Your task to perform on an android device: snooze an email in the gmail app Image 0: 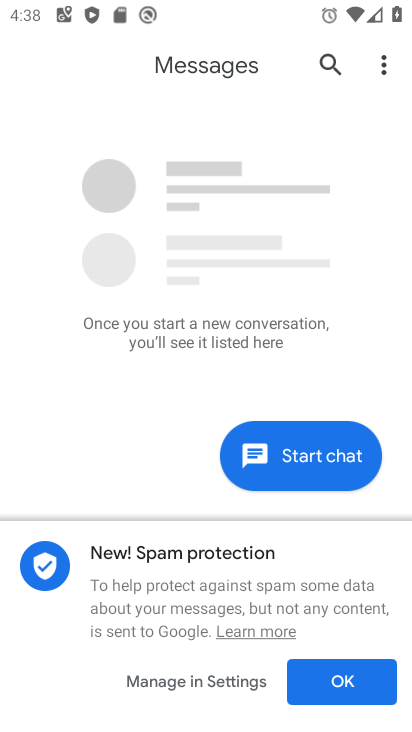
Step 0: press home button
Your task to perform on an android device: snooze an email in the gmail app Image 1: 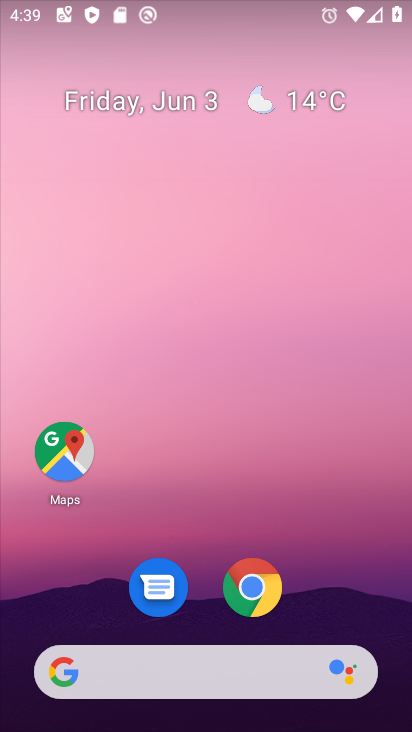
Step 1: drag from (175, 648) to (177, 350)
Your task to perform on an android device: snooze an email in the gmail app Image 2: 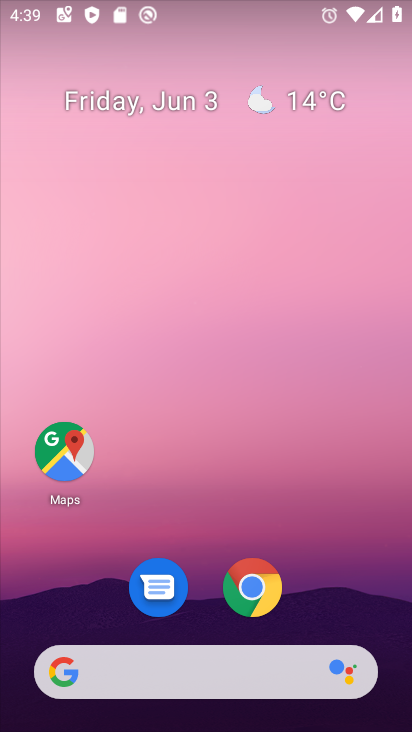
Step 2: drag from (207, 639) to (207, 293)
Your task to perform on an android device: snooze an email in the gmail app Image 3: 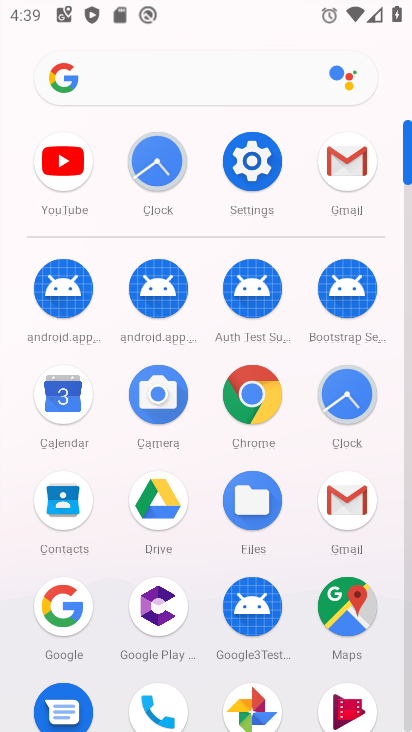
Step 3: click (363, 514)
Your task to perform on an android device: snooze an email in the gmail app Image 4: 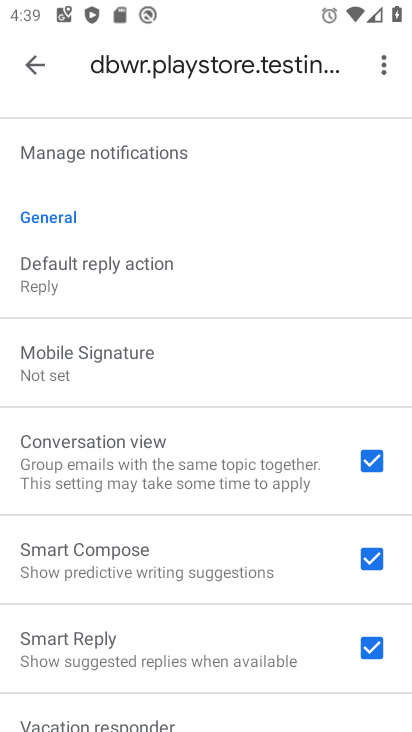
Step 4: click (35, 73)
Your task to perform on an android device: snooze an email in the gmail app Image 5: 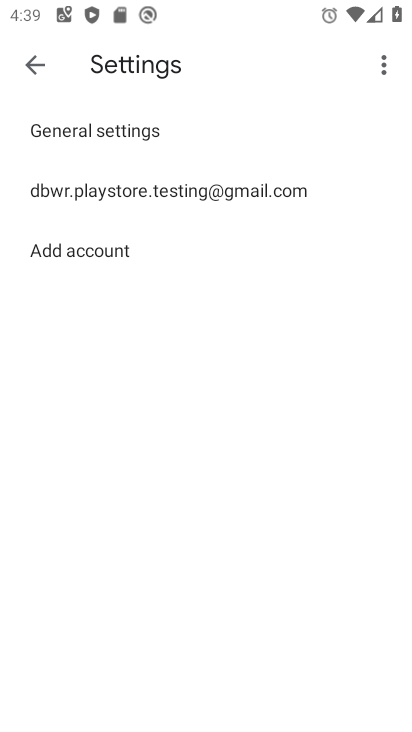
Step 5: click (35, 73)
Your task to perform on an android device: snooze an email in the gmail app Image 6: 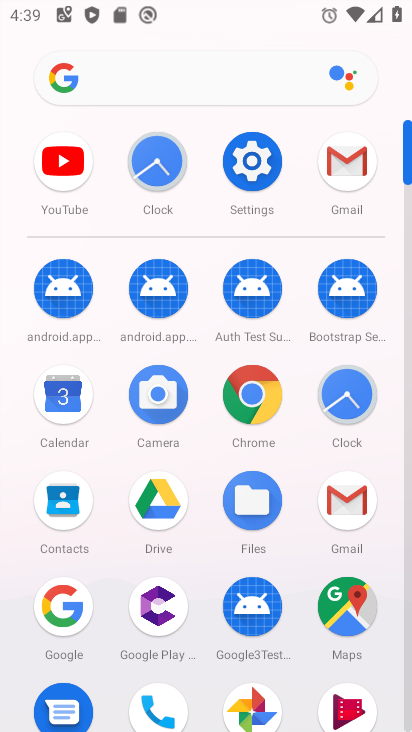
Step 6: click (334, 169)
Your task to perform on an android device: snooze an email in the gmail app Image 7: 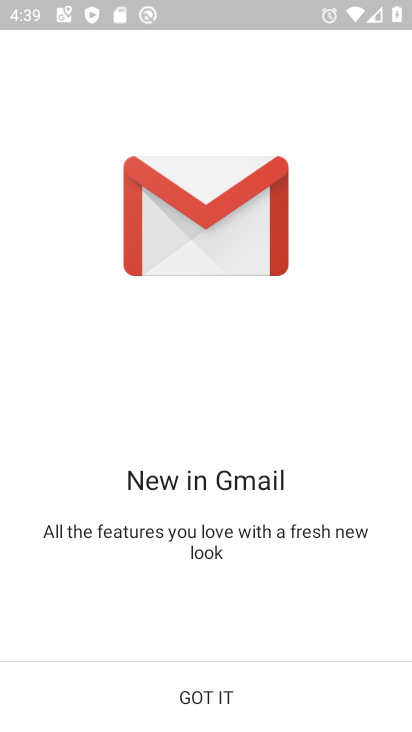
Step 7: click (212, 689)
Your task to perform on an android device: snooze an email in the gmail app Image 8: 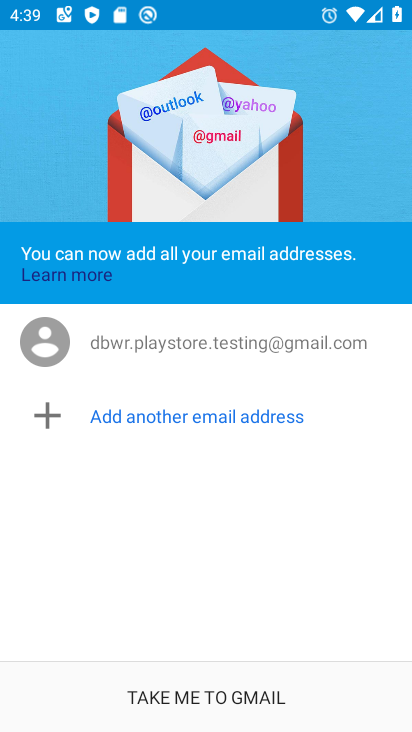
Step 8: click (188, 690)
Your task to perform on an android device: snooze an email in the gmail app Image 9: 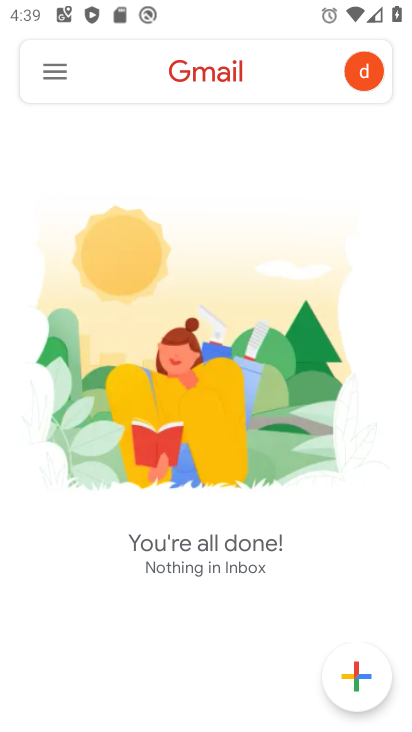
Step 9: click (51, 68)
Your task to perform on an android device: snooze an email in the gmail app Image 10: 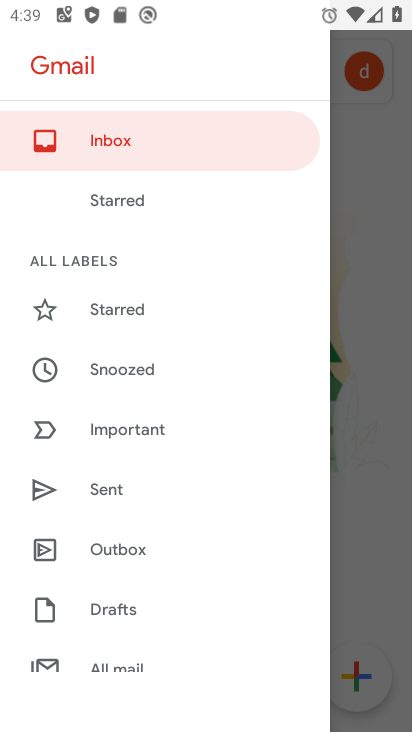
Step 10: click (125, 377)
Your task to perform on an android device: snooze an email in the gmail app Image 11: 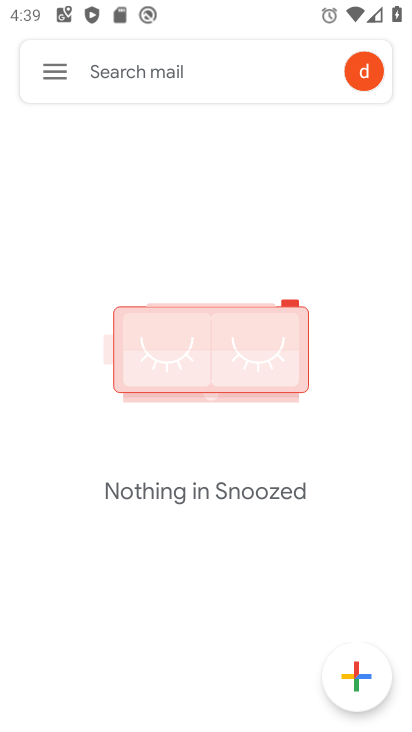
Step 11: task complete